Your task to perform on an android device: Open Reddit.com Image 0: 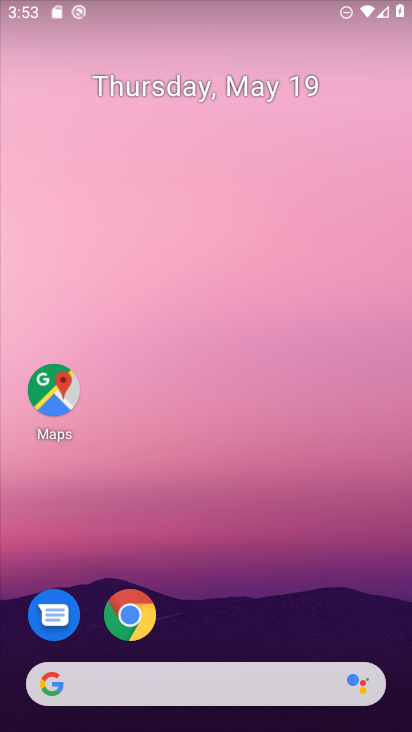
Step 0: drag from (233, 611) to (204, 133)
Your task to perform on an android device: Open Reddit.com Image 1: 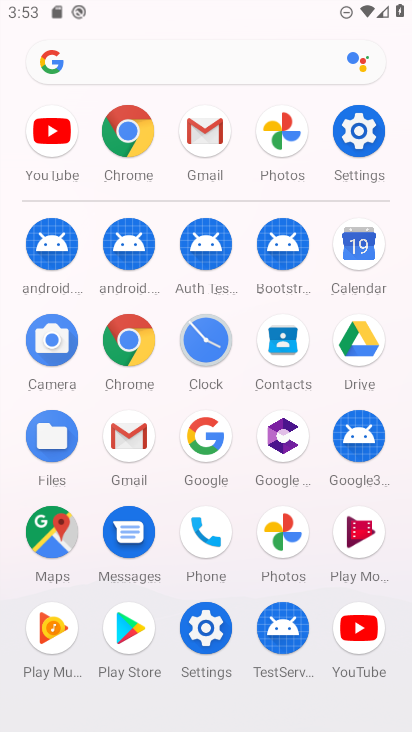
Step 1: click (140, 162)
Your task to perform on an android device: Open Reddit.com Image 2: 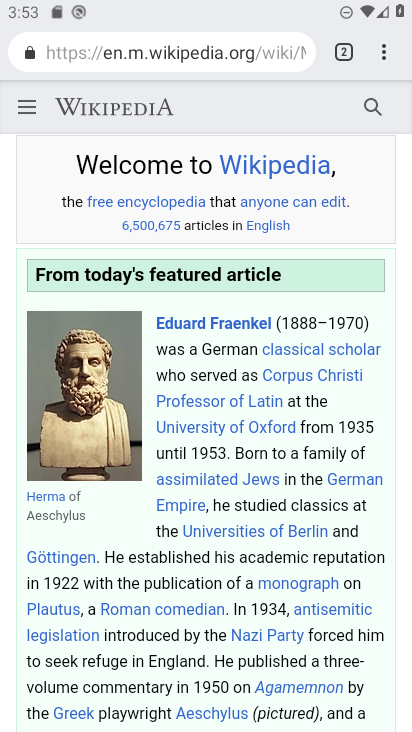
Step 2: click (176, 50)
Your task to perform on an android device: Open Reddit.com Image 3: 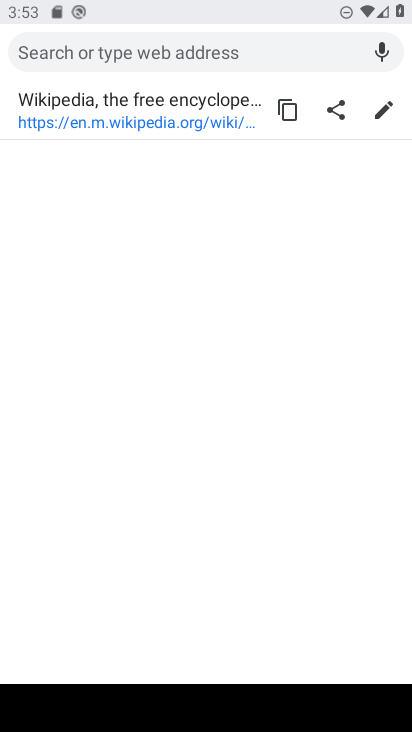
Step 3: type "Reddit.com"
Your task to perform on an android device: Open Reddit.com Image 4: 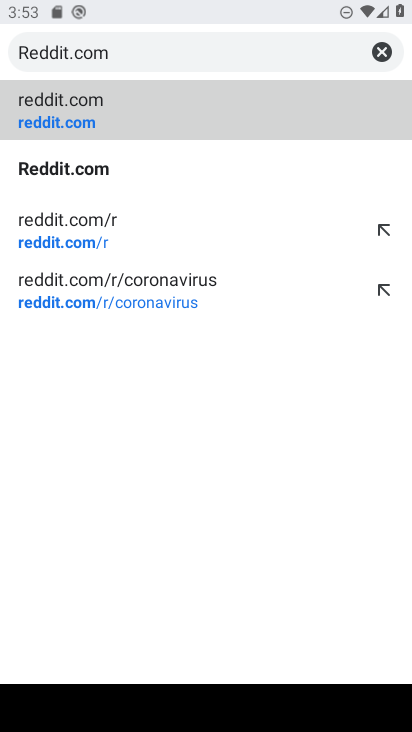
Step 4: click (77, 120)
Your task to perform on an android device: Open Reddit.com Image 5: 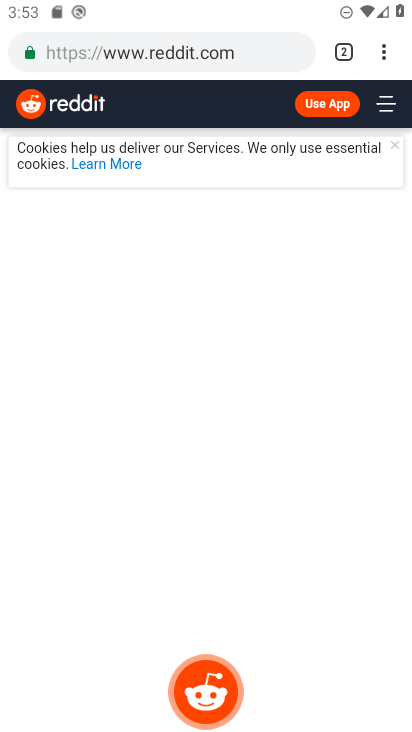
Step 5: task complete